Your task to perform on an android device: visit the assistant section in the google photos Image 0: 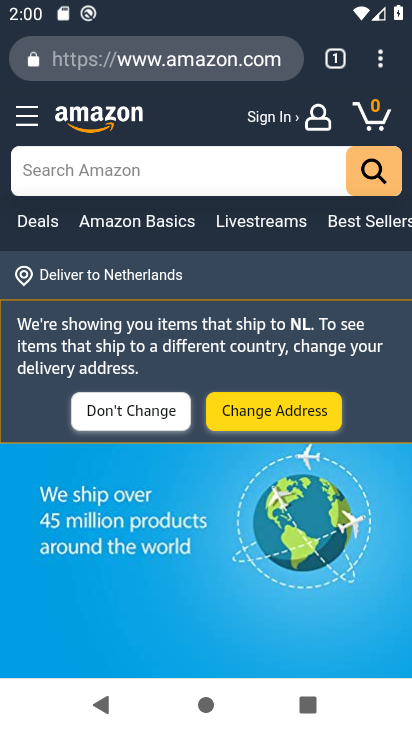
Step 0: press home button
Your task to perform on an android device: visit the assistant section in the google photos Image 1: 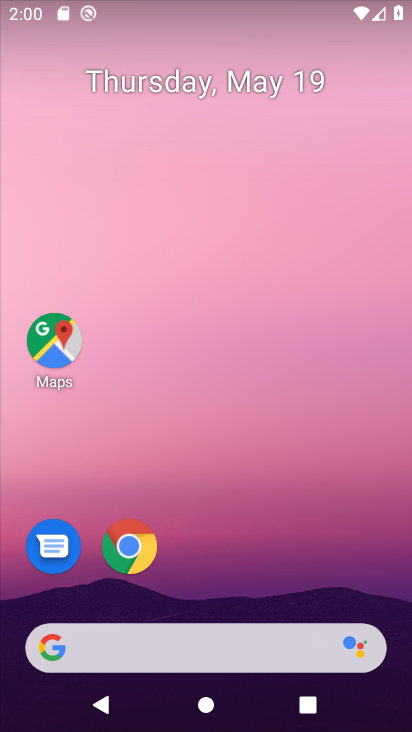
Step 1: drag from (221, 495) to (257, 114)
Your task to perform on an android device: visit the assistant section in the google photos Image 2: 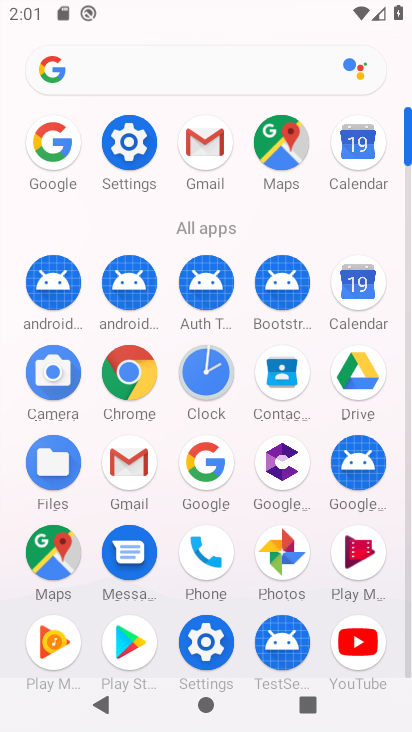
Step 2: click (286, 539)
Your task to perform on an android device: visit the assistant section in the google photos Image 3: 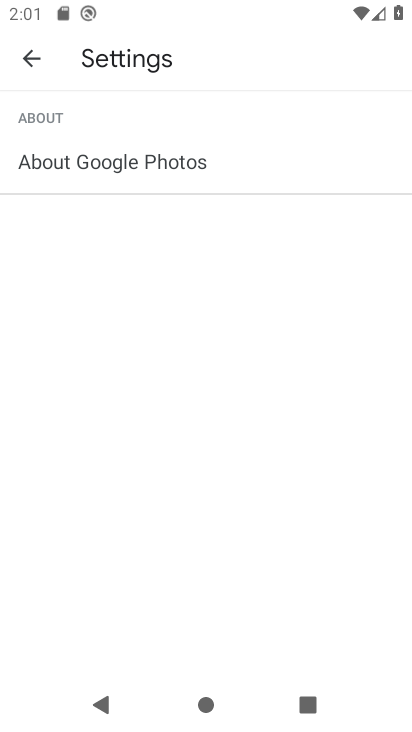
Step 3: click (50, 55)
Your task to perform on an android device: visit the assistant section in the google photos Image 4: 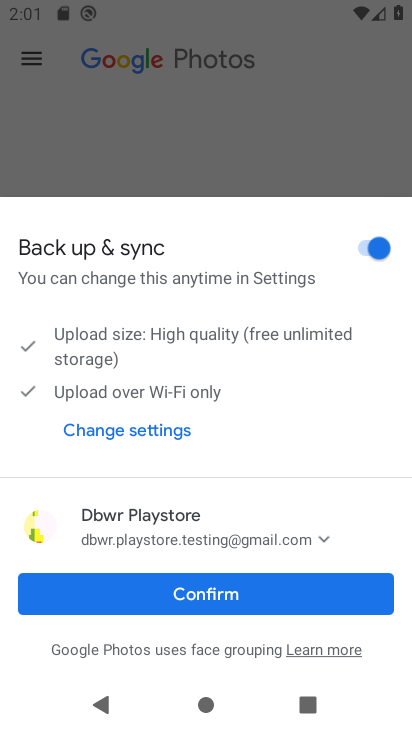
Step 4: click (202, 597)
Your task to perform on an android device: visit the assistant section in the google photos Image 5: 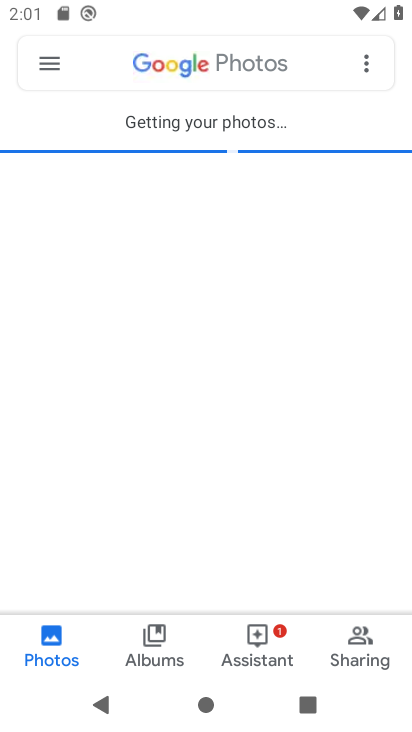
Step 5: click (270, 636)
Your task to perform on an android device: visit the assistant section in the google photos Image 6: 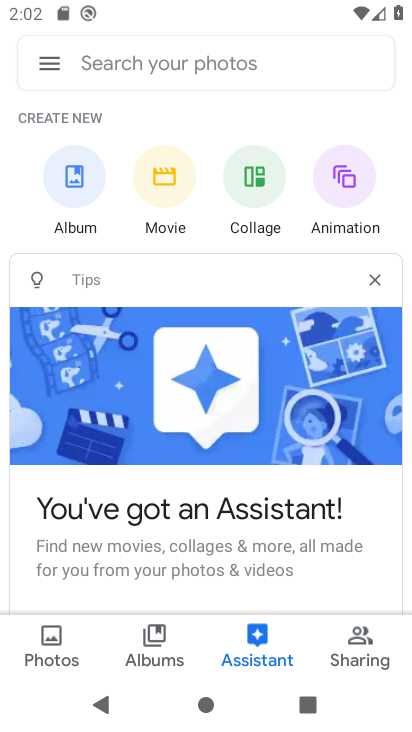
Step 6: task complete